Your task to perform on an android device: open app "Spotify: Music and Podcasts" (install if not already installed), go to login, and select forgot password Image 0: 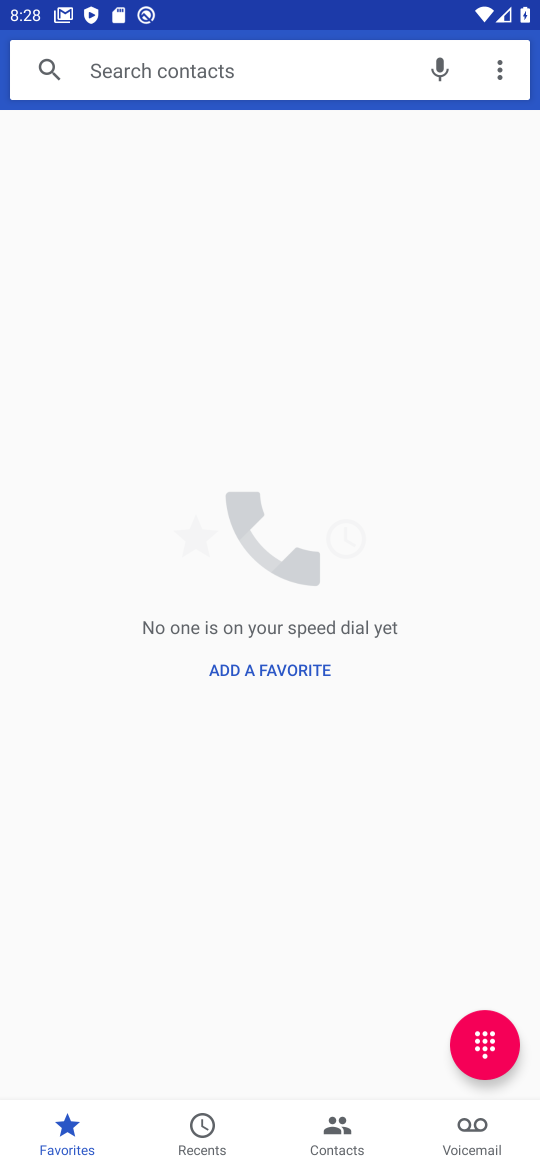
Step 0: press home button
Your task to perform on an android device: open app "Spotify: Music and Podcasts" (install if not already installed), go to login, and select forgot password Image 1: 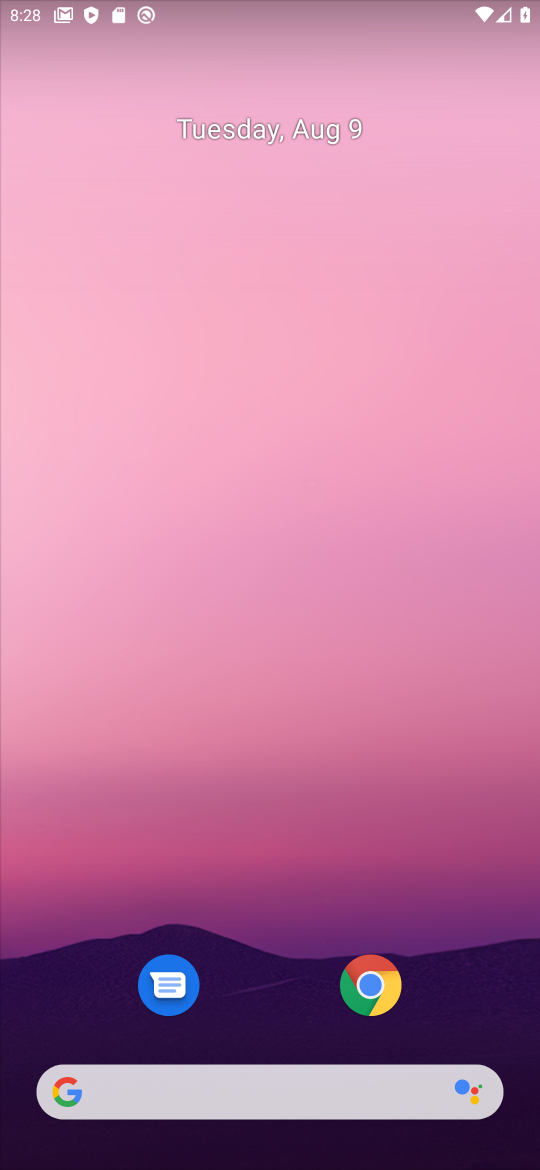
Step 1: drag from (256, 1013) to (257, 806)
Your task to perform on an android device: open app "Spotify: Music and Podcasts" (install if not already installed), go to login, and select forgot password Image 2: 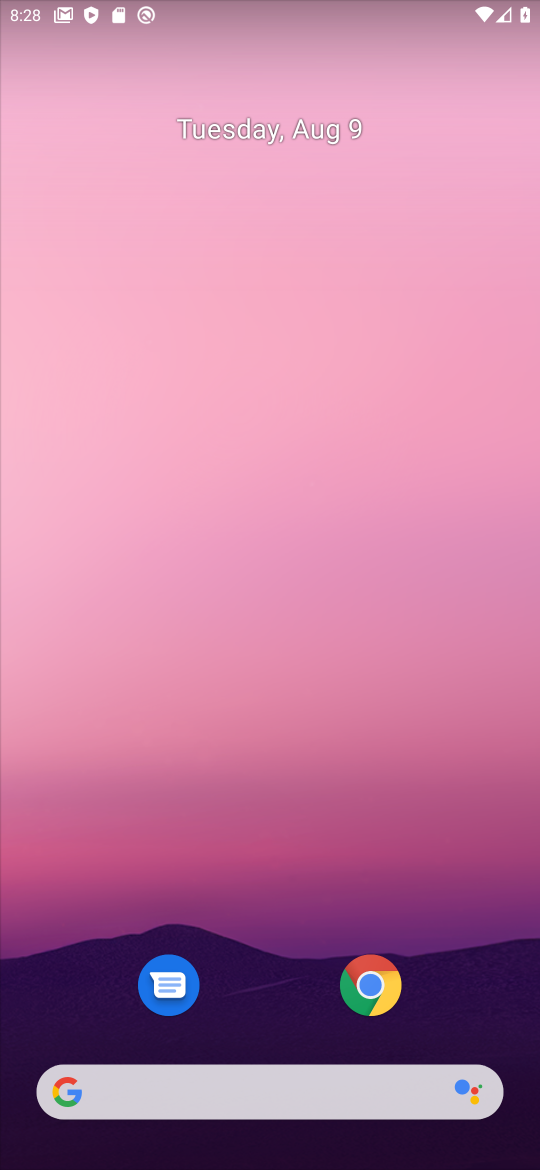
Step 2: drag from (239, 1051) to (283, 366)
Your task to perform on an android device: open app "Spotify: Music and Podcasts" (install if not already installed), go to login, and select forgot password Image 3: 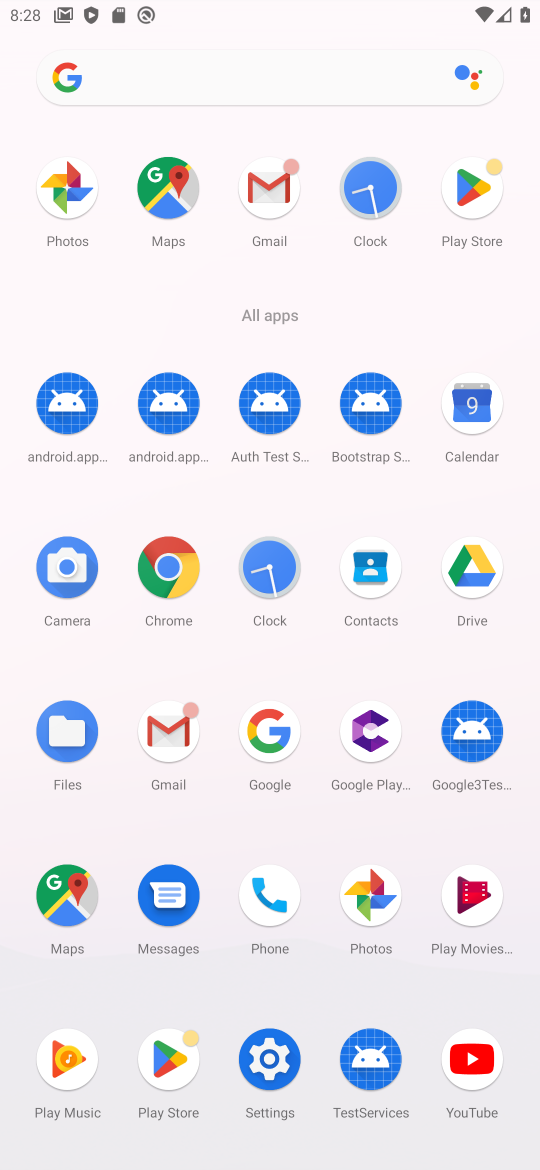
Step 3: click (476, 191)
Your task to perform on an android device: open app "Spotify: Music and Podcasts" (install if not already installed), go to login, and select forgot password Image 4: 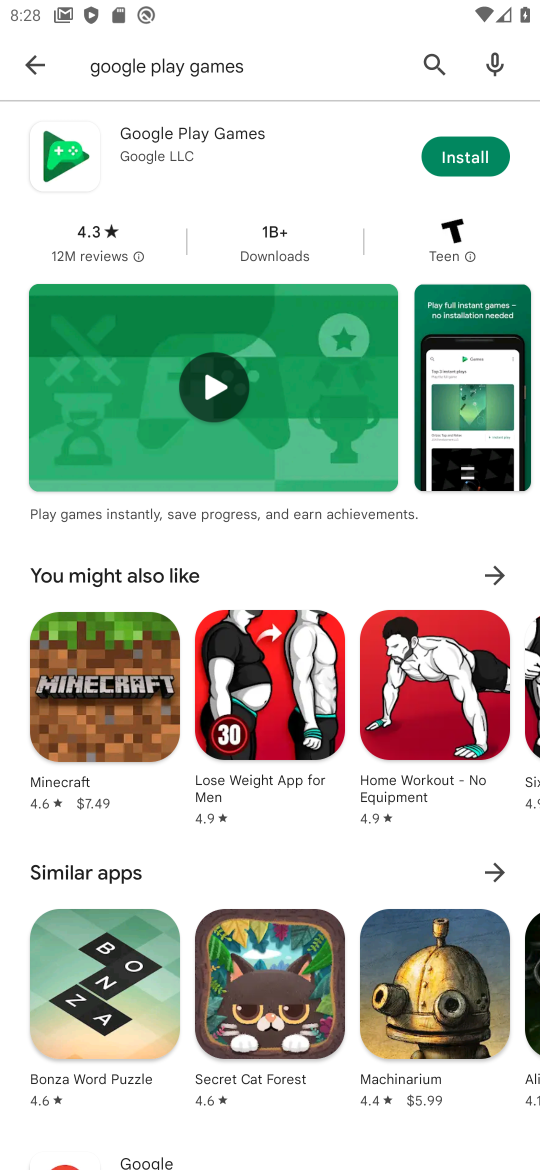
Step 4: click (192, 73)
Your task to perform on an android device: open app "Spotify: Music and Podcasts" (install if not already installed), go to login, and select forgot password Image 5: 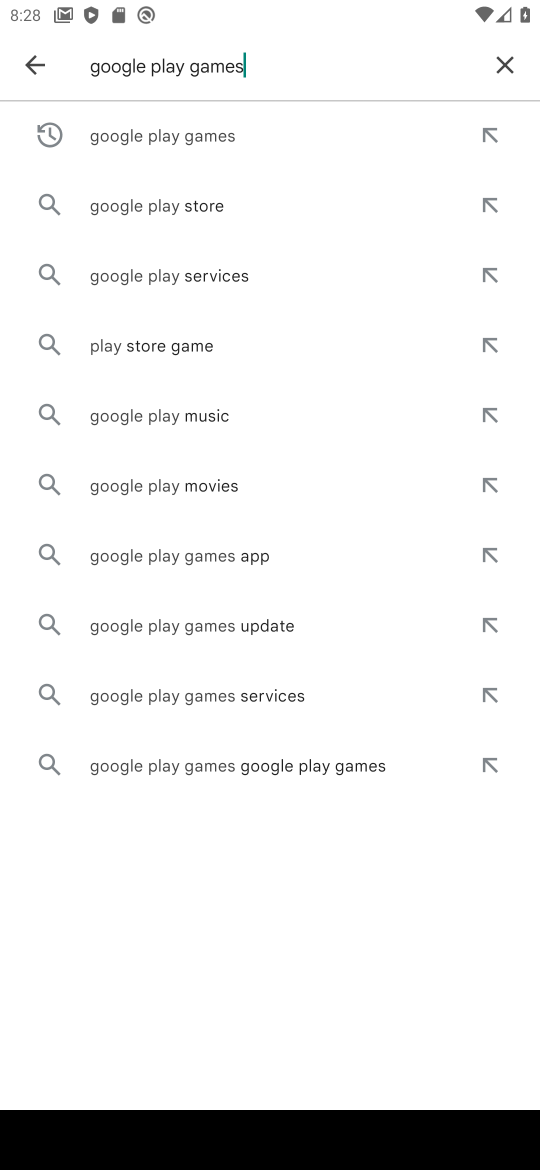
Step 5: click (509, 67)
Your task to perform on an android device: open app "Spotify: Music and Podcasts" (install if not already installed), go to login, and select forgot password Image 6: 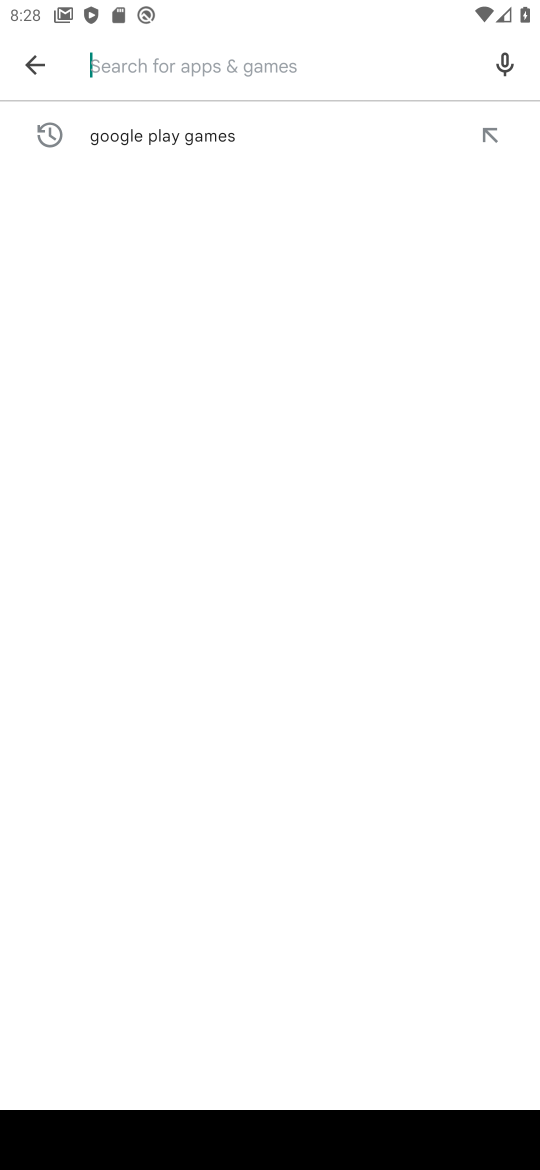
Step 6: type "spotify"
Your task to perform on an android device: open app "Spotify: Music and Podcasts" (install if not already installed), go to login, and select forgot password Image 7: 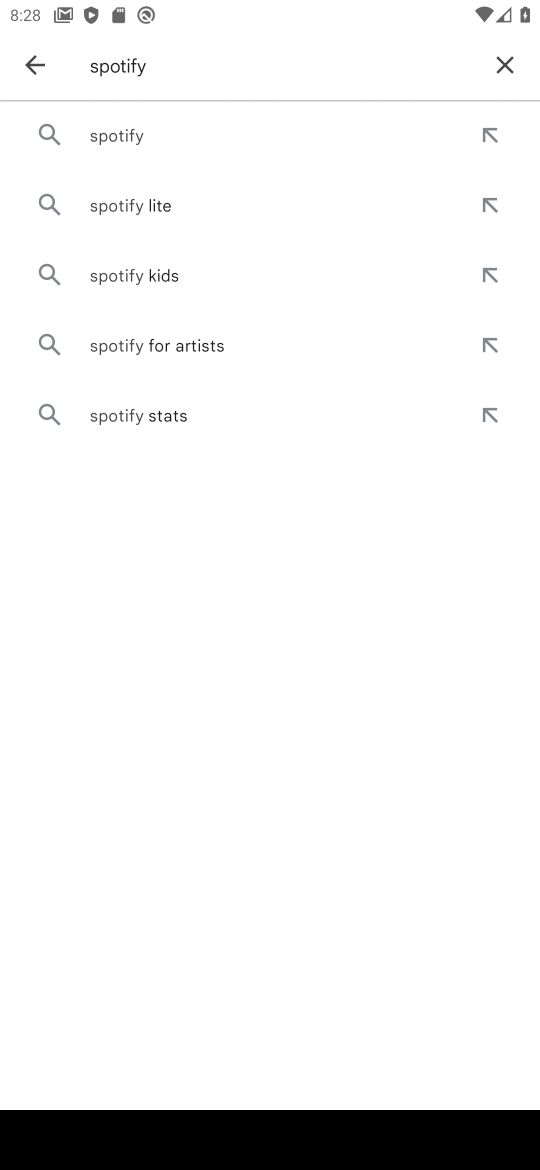
Step 7: click (100, 147)
Your task to perform on an android device: open app "Spotify: Music and Podcasts" (install if not already installed), go to login, and select forgot password Image 8: 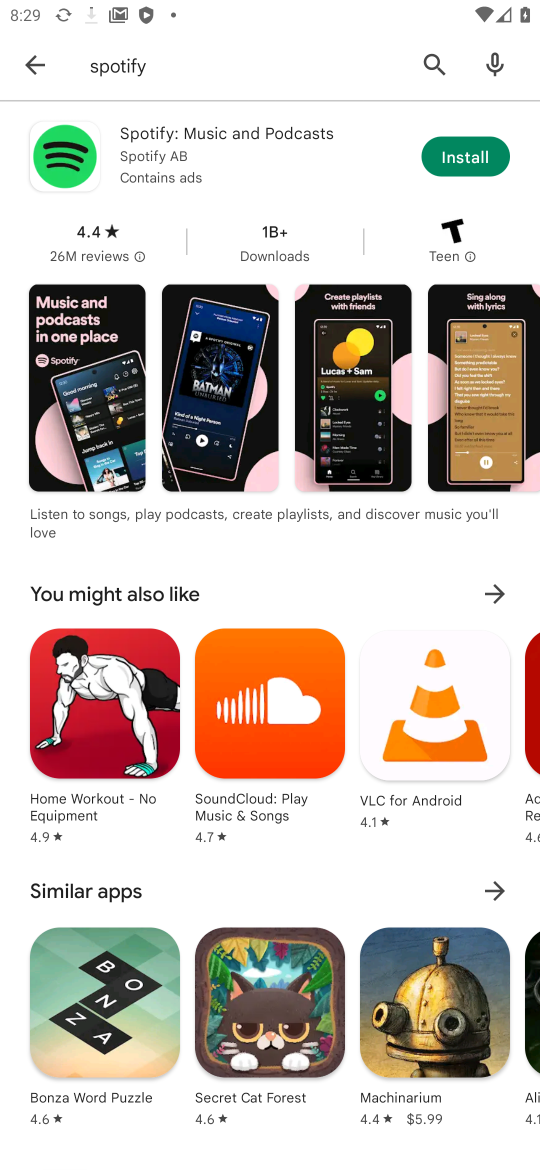
Step 8: click (452, 159)
Your task to perform on an android device: open app "Spotify: Music and Podcasts" (install if not already installed), go to login, and select forgot password Image 9: 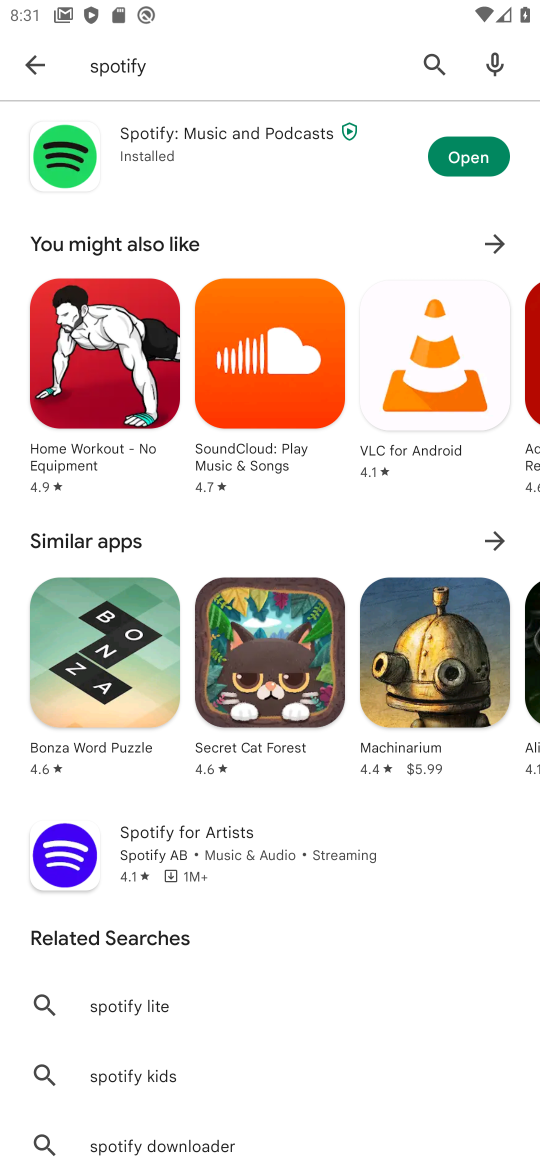
Step 9: click (501, 171)
Your task to perform on an android device: open app "Spotify: Music and Podcasts" (install if not already installed), go to login, and select forgot password Image 10: 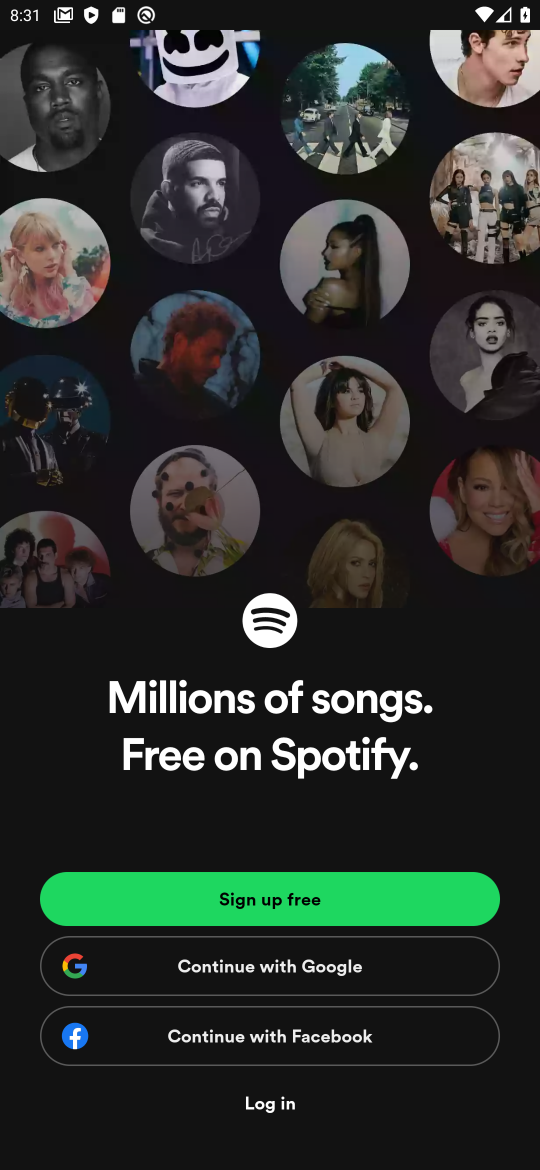
Step 10: click (276, 1109)
Your task to perform on an android device: open app "Spotify: Music and Podcasts" (install if not already installed), go to login, and select forgot password Image 11: 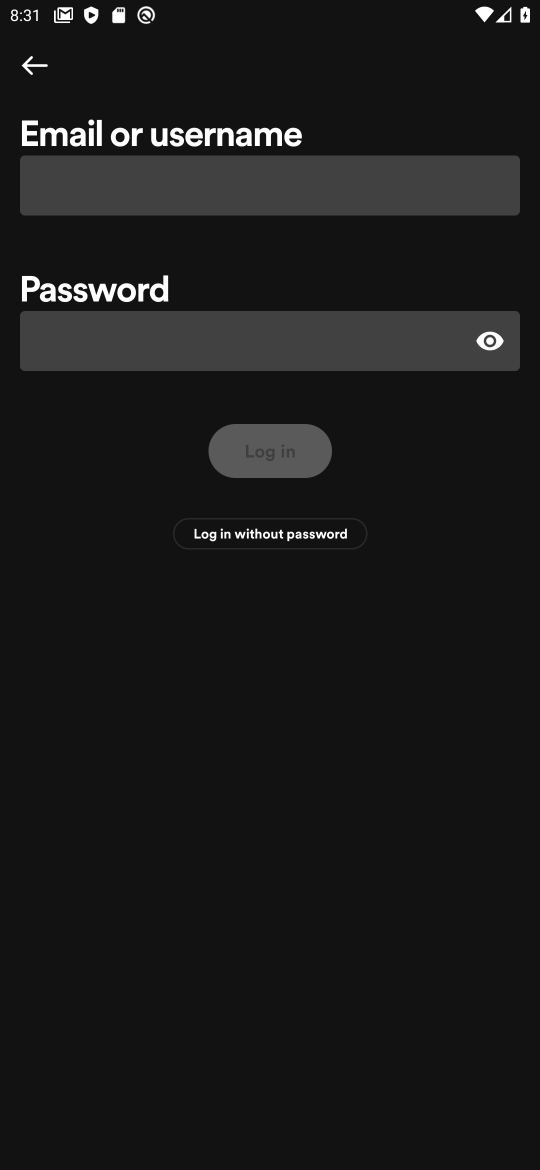
Step 11: click (276, 539)
Your task to perform on an android device: open app "Spotify: Music and Podcasts" (install if not already installed), go to login, and select forgot password Image 12: 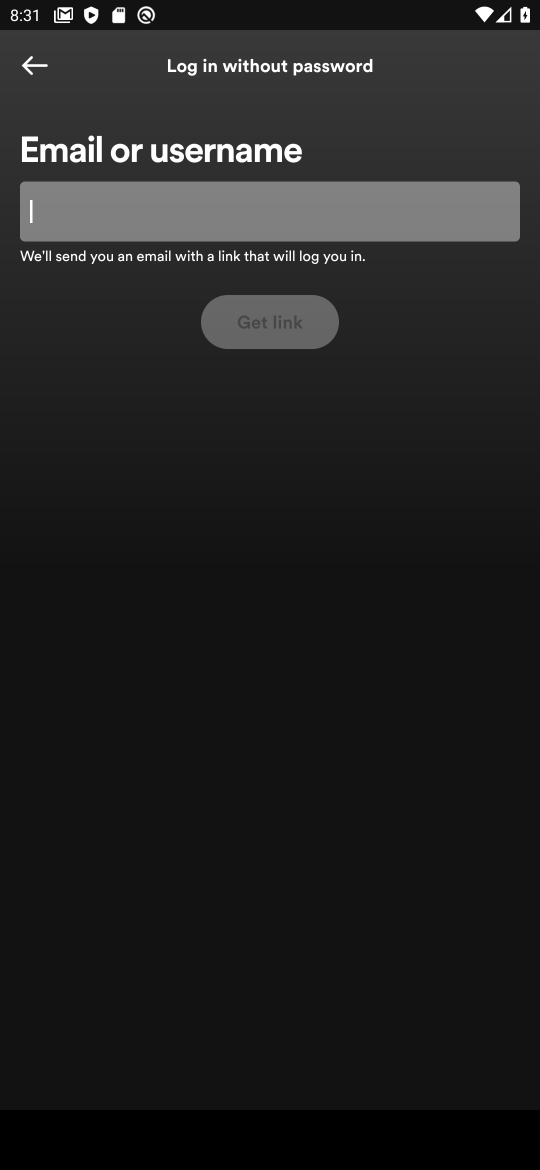
Step 12: click (19, 62)
Your task to perform on an android device: open app "Spotify: Music and Podcasts" (install if not already installed), go to login, and select forgot password Image 13: 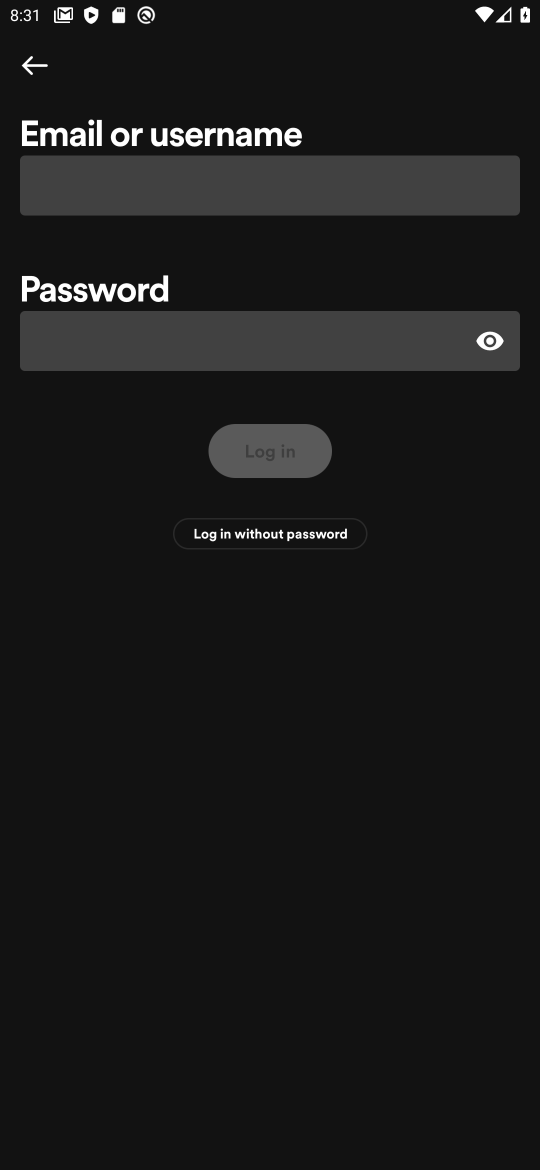
Step 13: task complete